Your task to perform on an android device: toggle wifi Image 0: 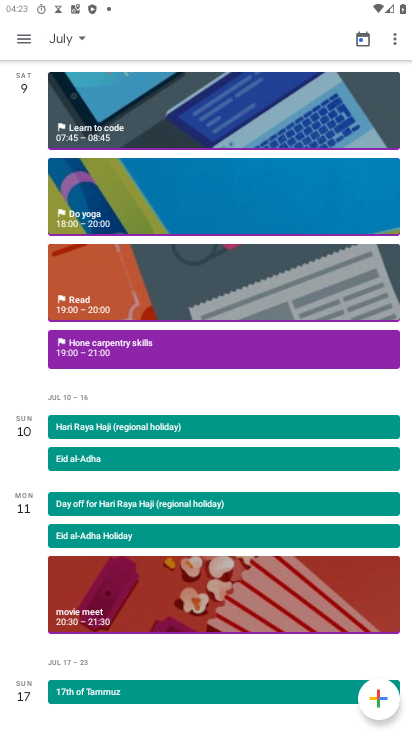
Step 0: press home button
Your task to perform on an android device: toggle wifi Image 1: 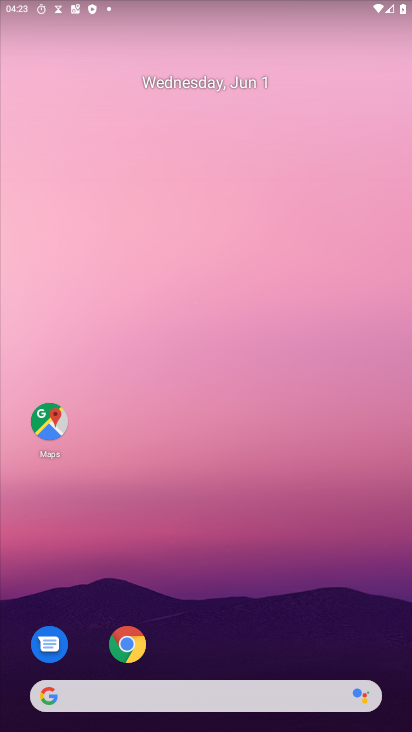
Step 1: drag from (131, 4) to (118, 409)
Your task to perform on an android device: toggle wifi Image 2: 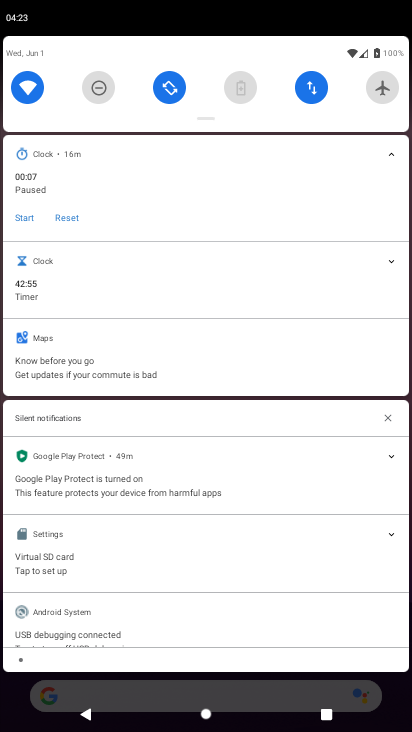
Step 2: click (27, 82)
Your task to perform on an android device: toggle wifi Image 3: 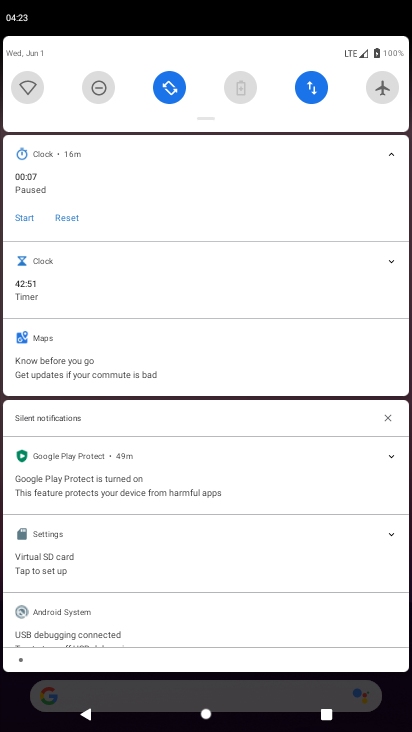
Step 3: task complete